Your task to perform on an android device: Open Google Maps Image 0: 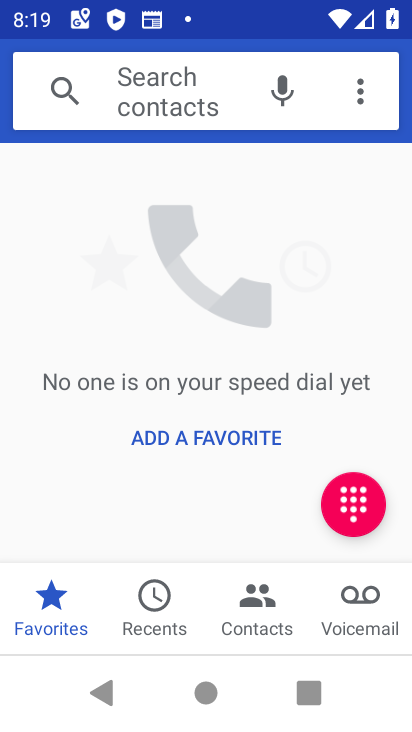
Step 0: press home button
Your task to perform on an android device: Open Google Maps Image 1: 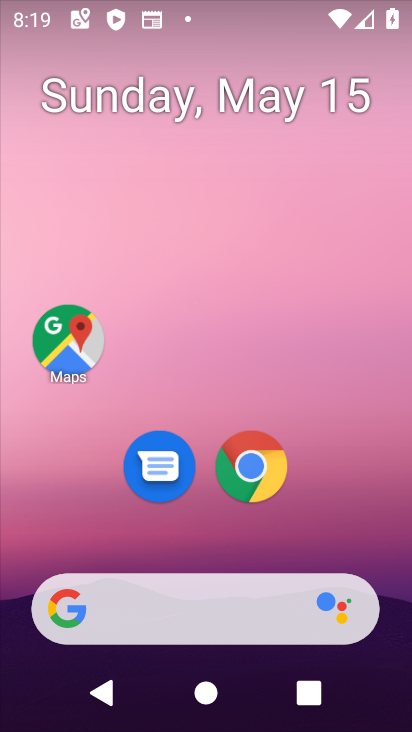
Step 1: click (48, 322)
Your task to perform on an android device: Open Google Maps Image 2: 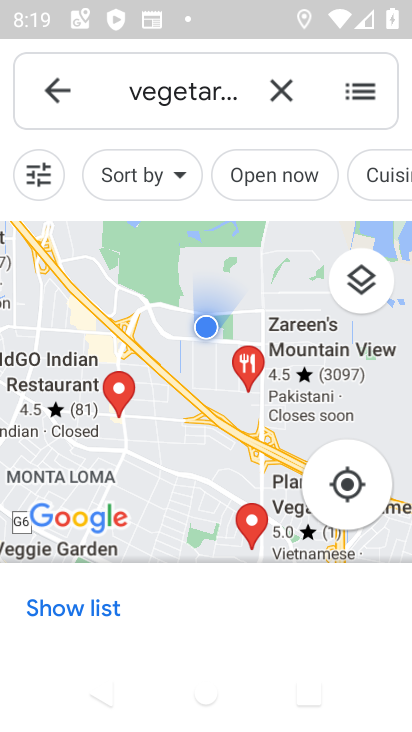
Step 2: task complete